Your task to perform on an android device: Open Google Image 0: 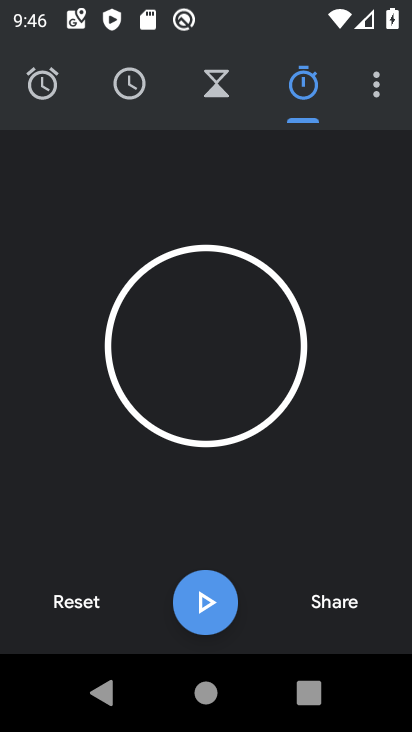
Step 0: press back button
Your task to perform on an android device: Open Google Image 1: 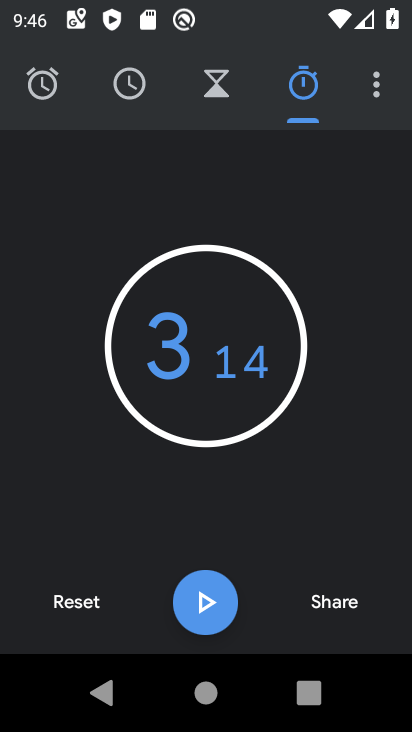
Step 1: press back button
Your task to perform on an android device: Open Google Image 2: 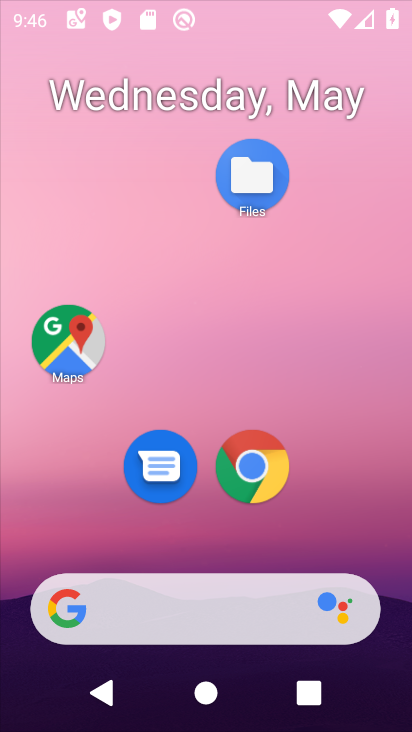
Step 2: press back button
Your task to perform on an android device: Open Google Image 3: 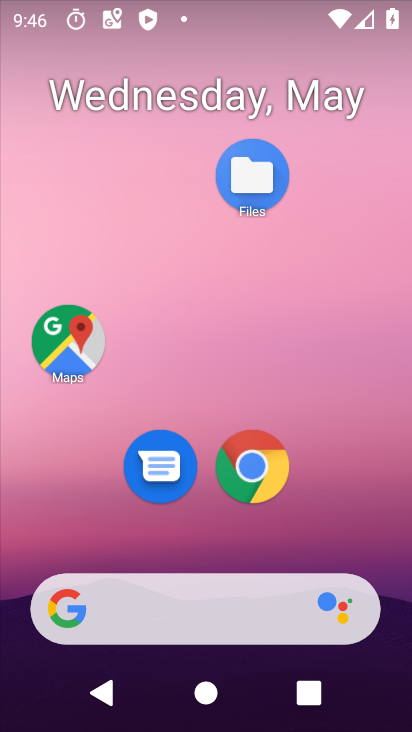
Step 3: drag from (259, 661) to (139, 119)
Your task to perform on an android device: Open Google Image 4: 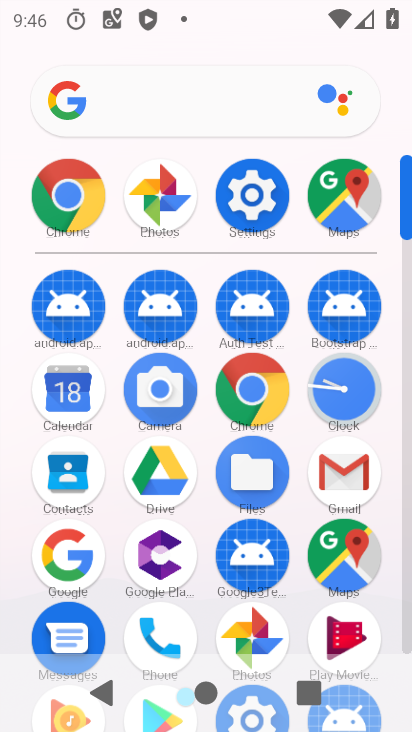
Step 4: click (57, 558)
Your task to perform on an android device: Open Google Image 5: 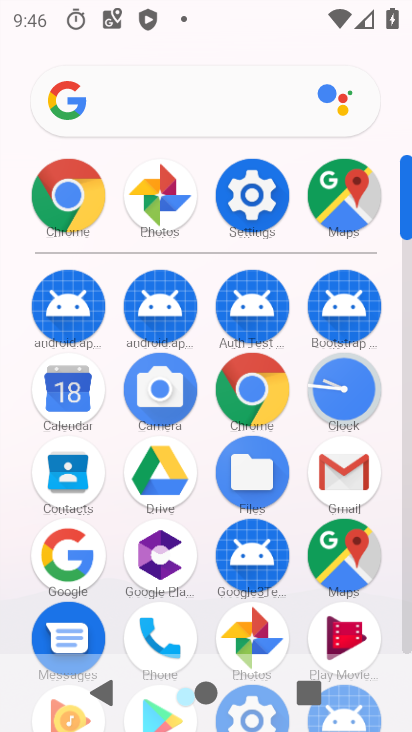
Step 5: click (58, 558)
Your task to perform on an android device: Open Google Image 6: 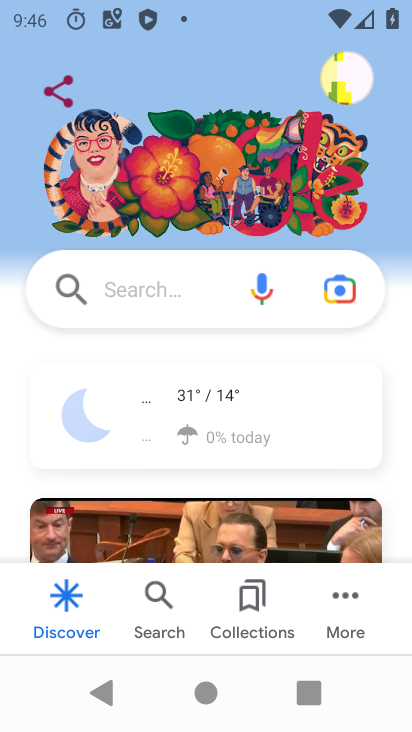
Step 6: task complete